Your task to perform on an android device: Open calendar and show me the fourth week of next month Image 0: 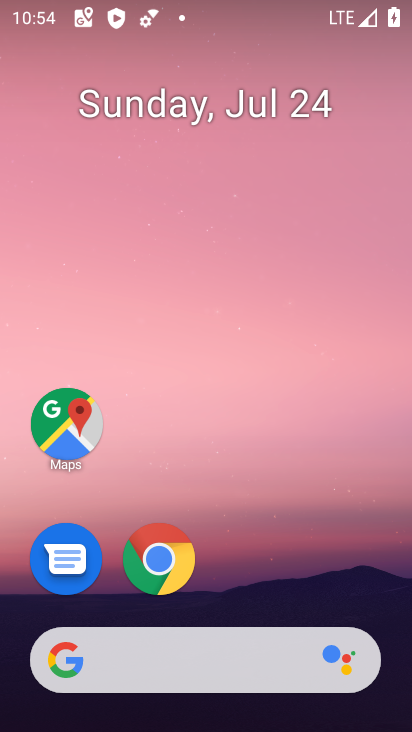
Step 0: drag from (219, 611) to (268, 35)
Your task to perform on an android device: Open calendar and show me the fourth week of next month Image 1: 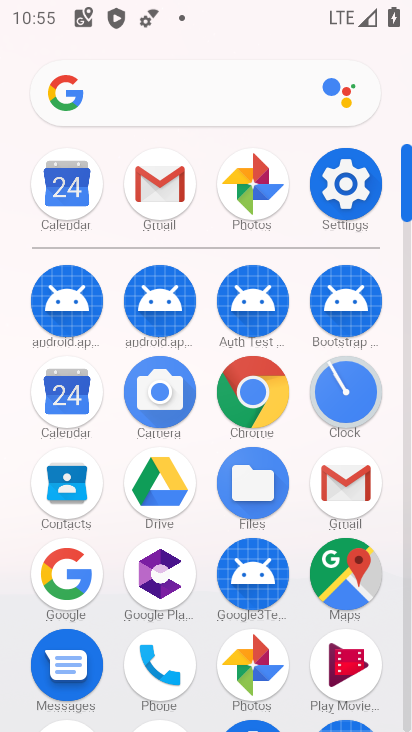
Step 1: click (58, 197)
Your task to perform on an android device: Open calendar and show me the fourth week of next month Image 2: 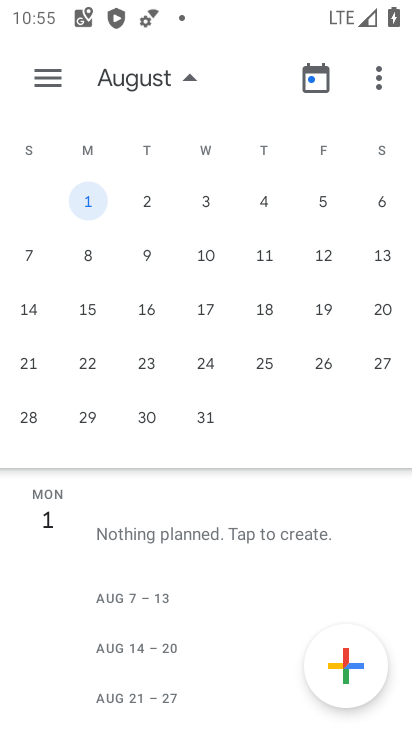
Step 2: click (88, 364)
Your task to perform on an android device: Open calendar and show me the fourth week of next month Image 3: 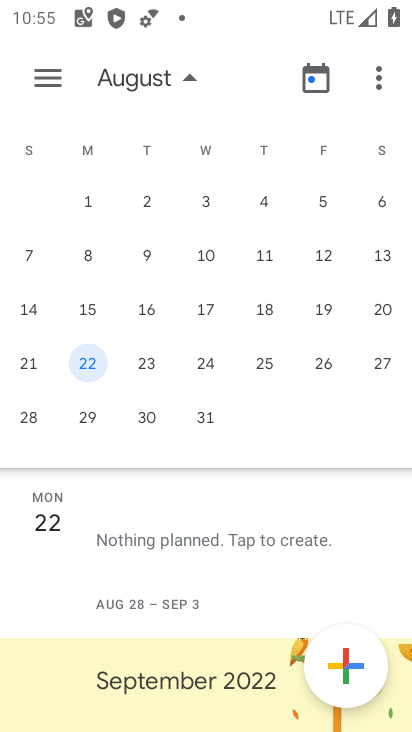
Step 3: task complete